Your task to perform on an android device: open sync settings in chrome Image 0: 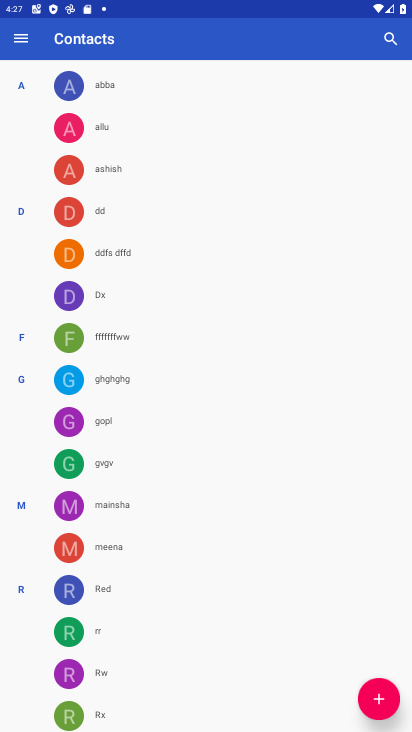
Step 0: press home button
Your task to perform on an android device: open sync settings in chrome Image 1: 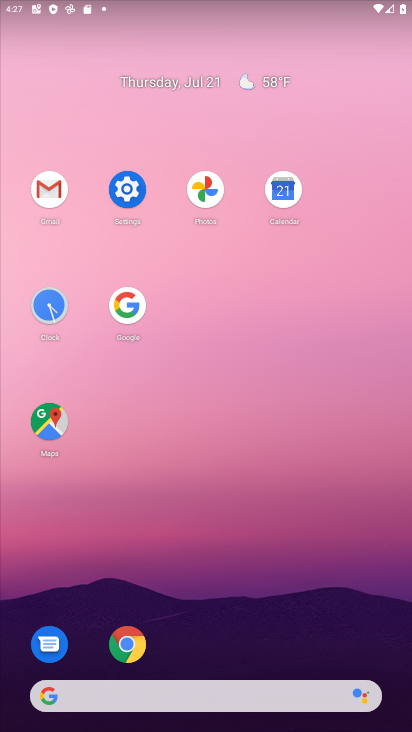
Step 1: click (124, 634)
Your task to perform on an android device: open sync settings in chrome Image 2: 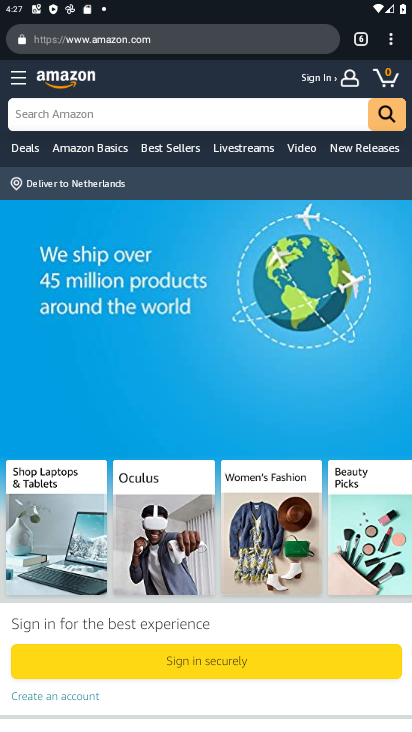
Step 2: click (388, 41)
Your task to perform on an android device: open sync settings in chrome Image 3: 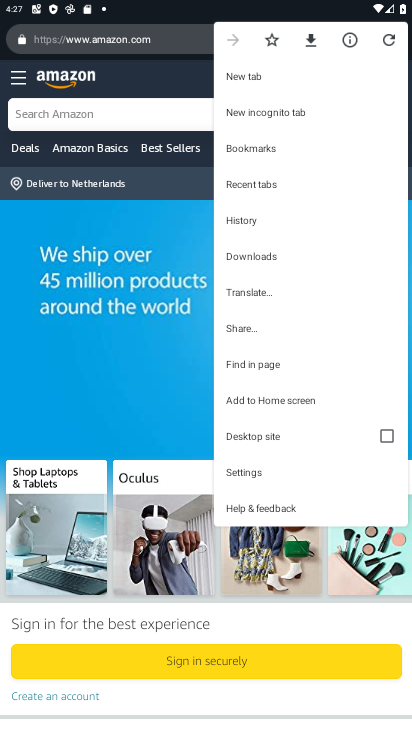
Step 3: click (275, 476)
Your task to perform on an android device: open sync settings in chrome Image 4: 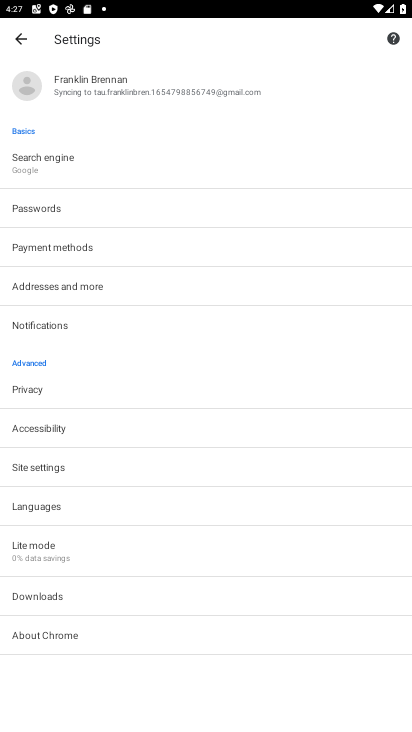
Step 4: click (103, 468)
Your task to perform on an android device: open sync settings in chrome Image 5: 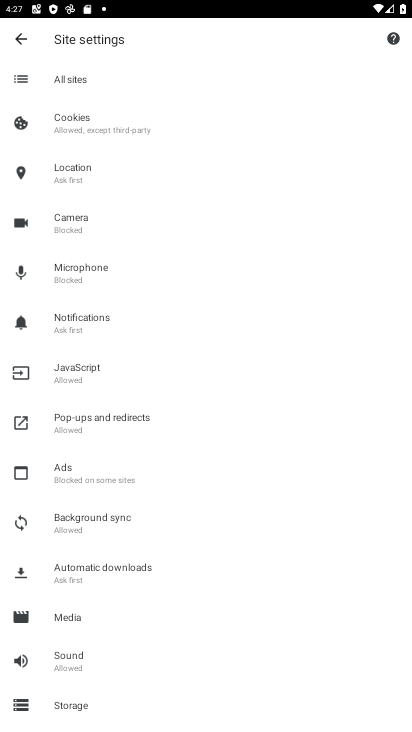
Step 5: click (94, 523)
Your task to perform on an android device: open sync settings in chrome Image 6: 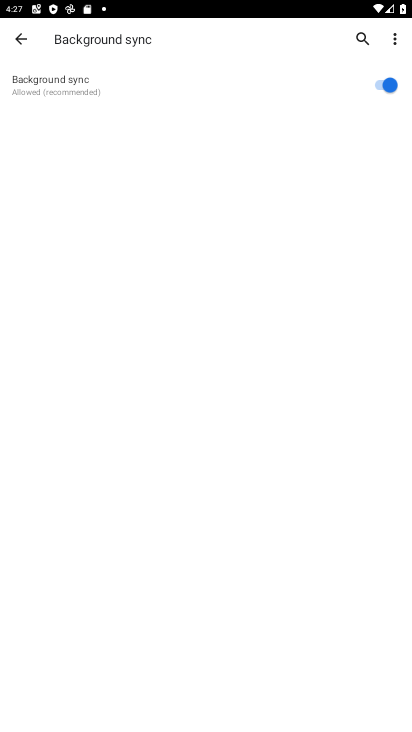
Step 6: task complete